Your task to perform on an android device: How big is the universe? Image 0: 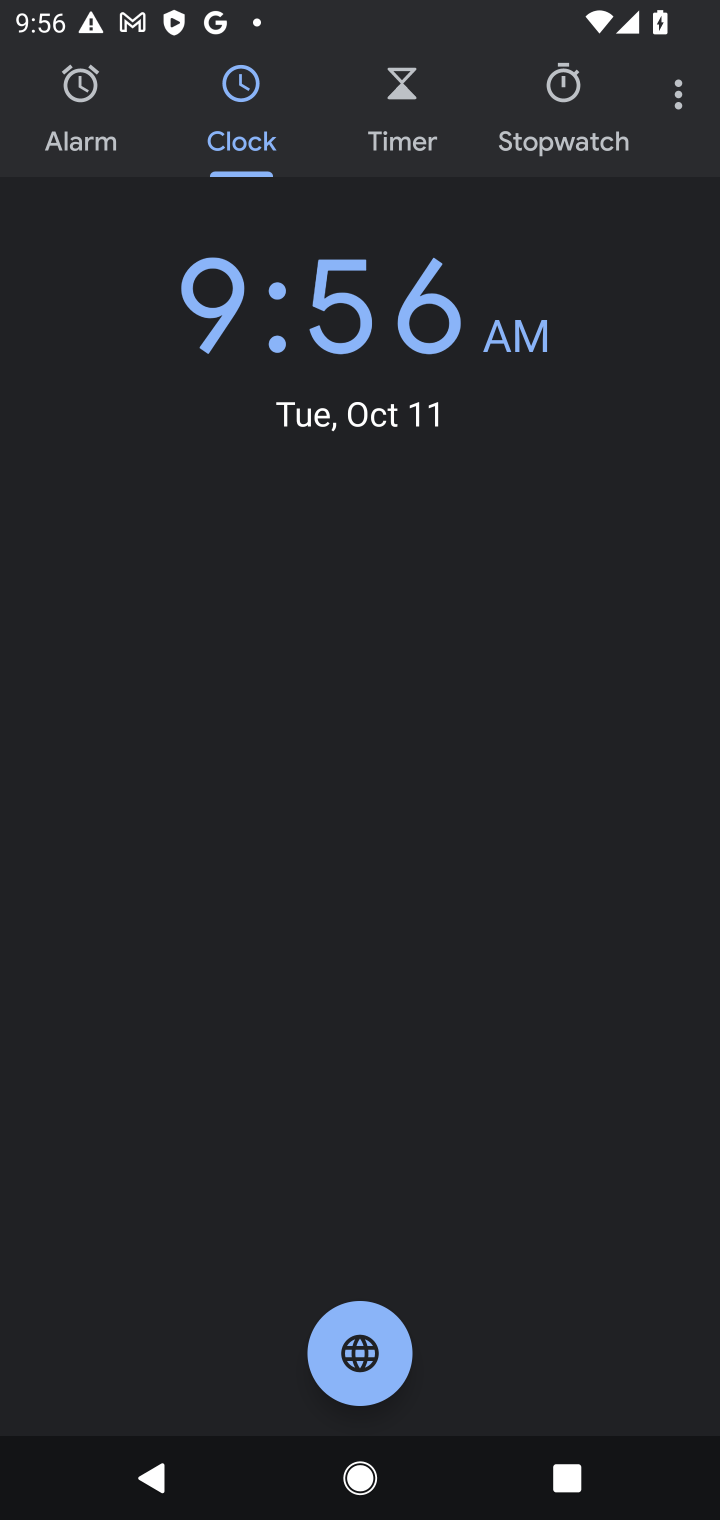
Step 0: press home button
Your task to perform on an android device: How big is the universe? Image 1: 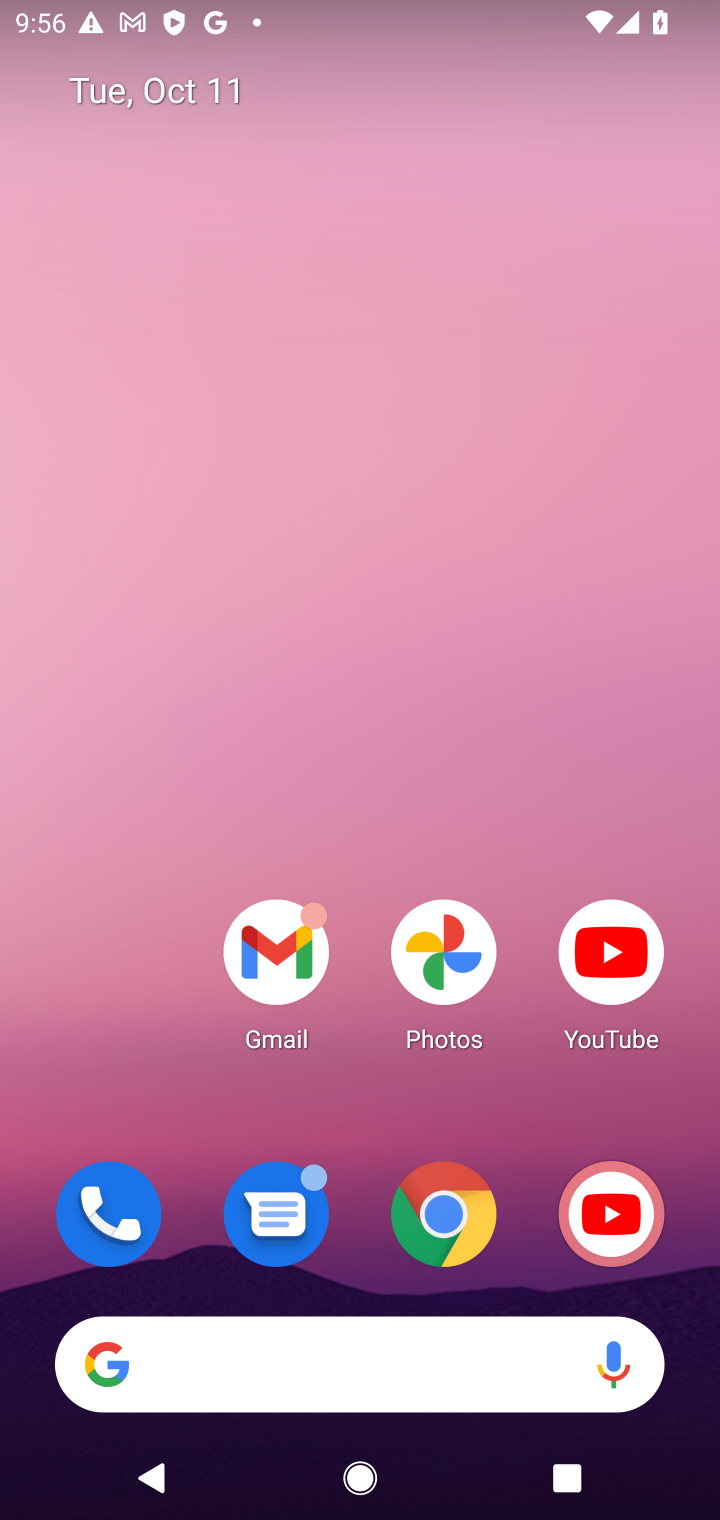
Step 1: drag from (381, 1132) to (360, 33)
Your task to perform on an android device: How big is the universe? Image 2: 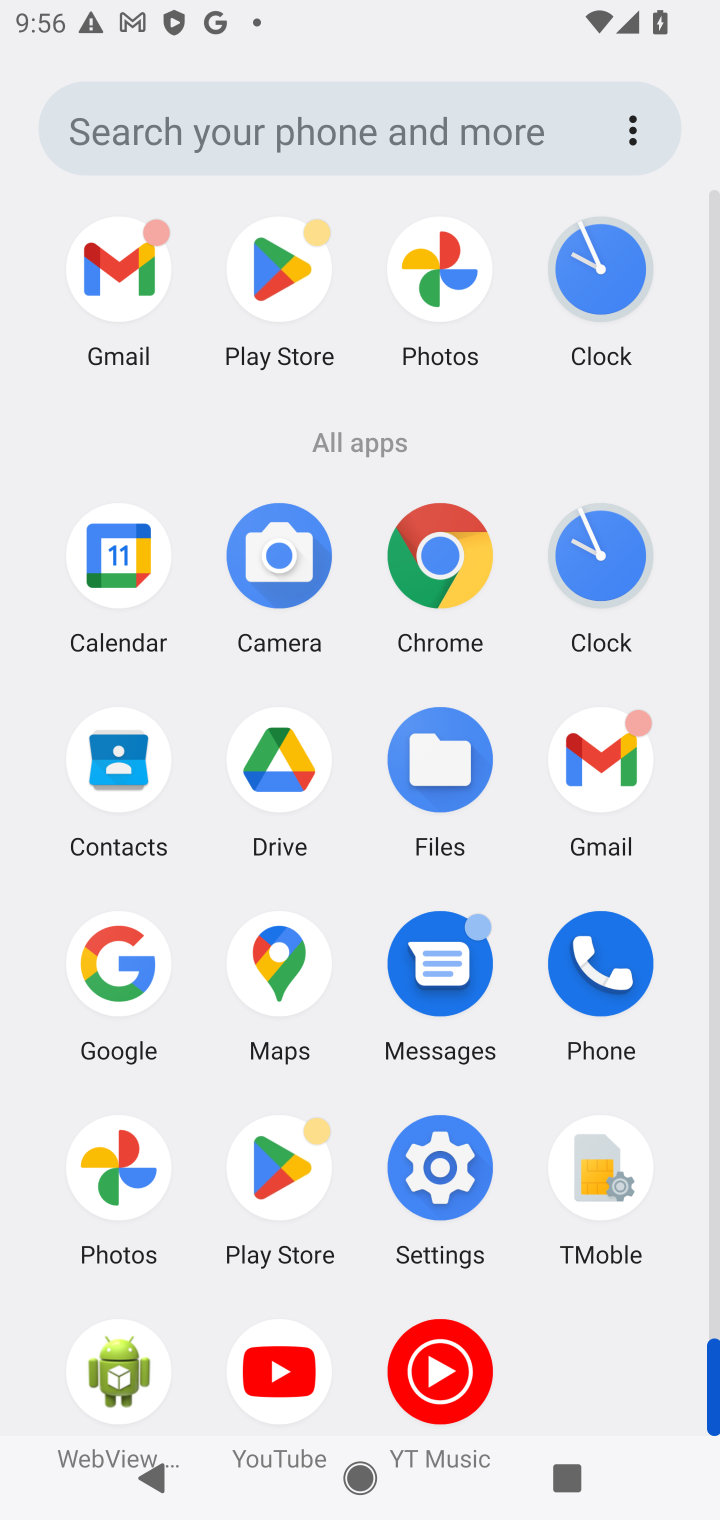
Step 2: click (454, 554)
Your task to perform on an android device: How big is the universe? Image 3: 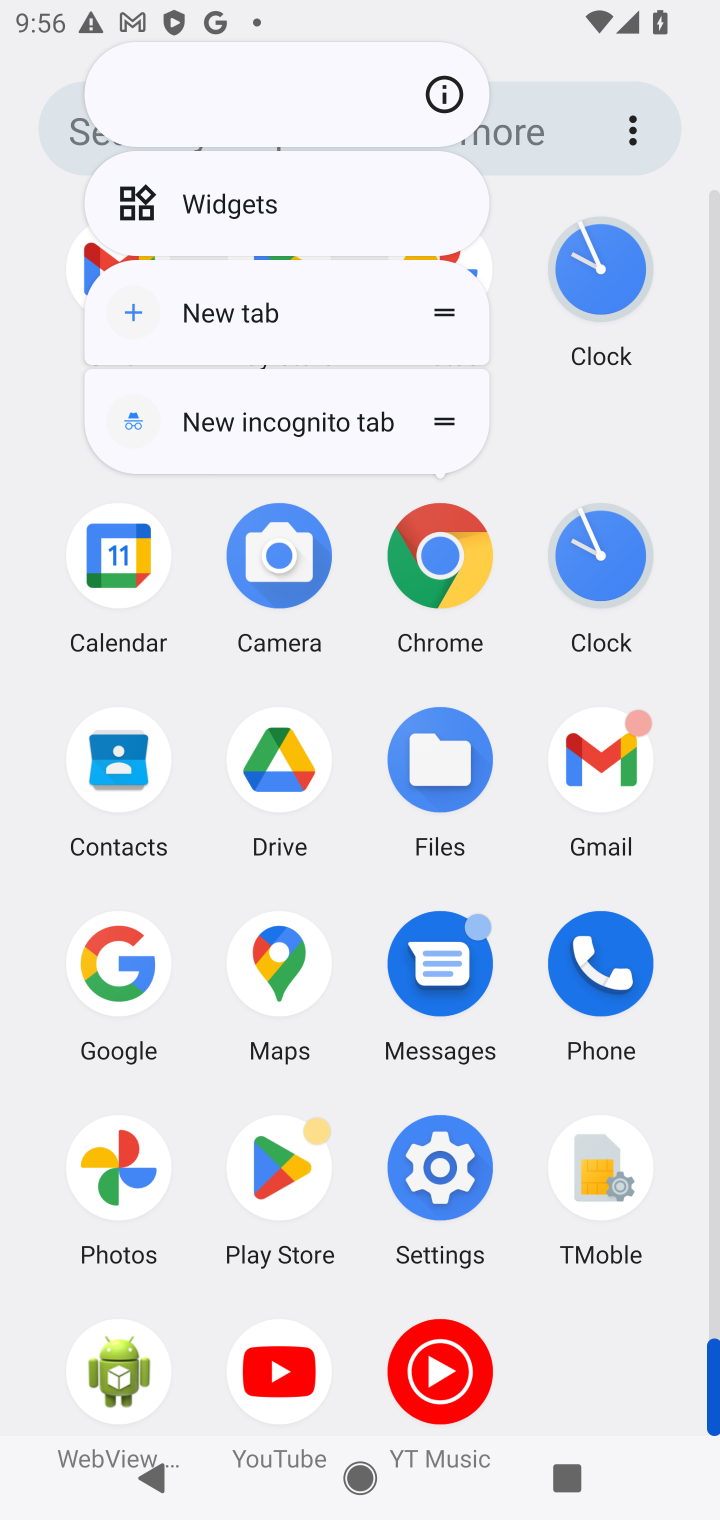
Step 3: click (456, 552)
Your task to perform on an android device: How big is the universe? Image 4: 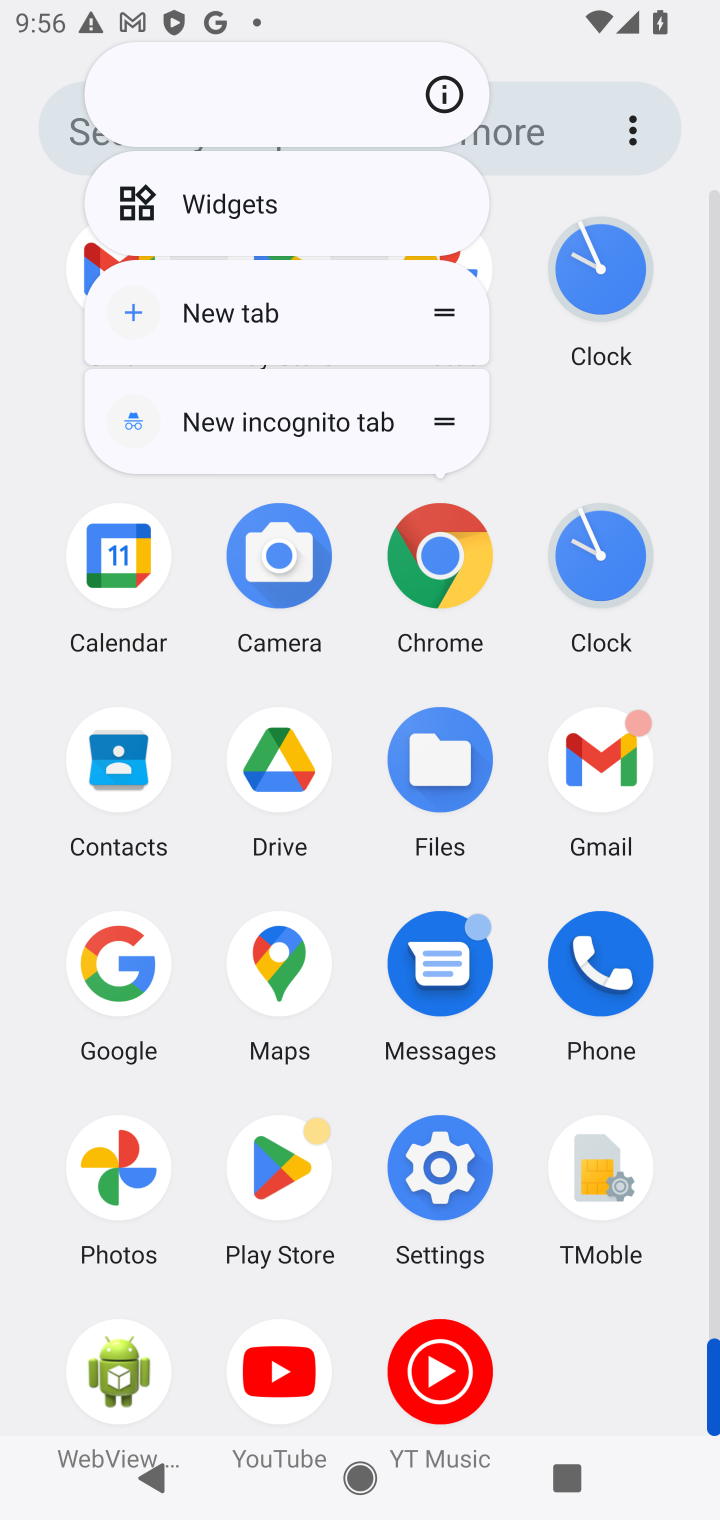
Step 4: click (450, 552)
Your task to perform on an android device: How big is the universe? Image 5: 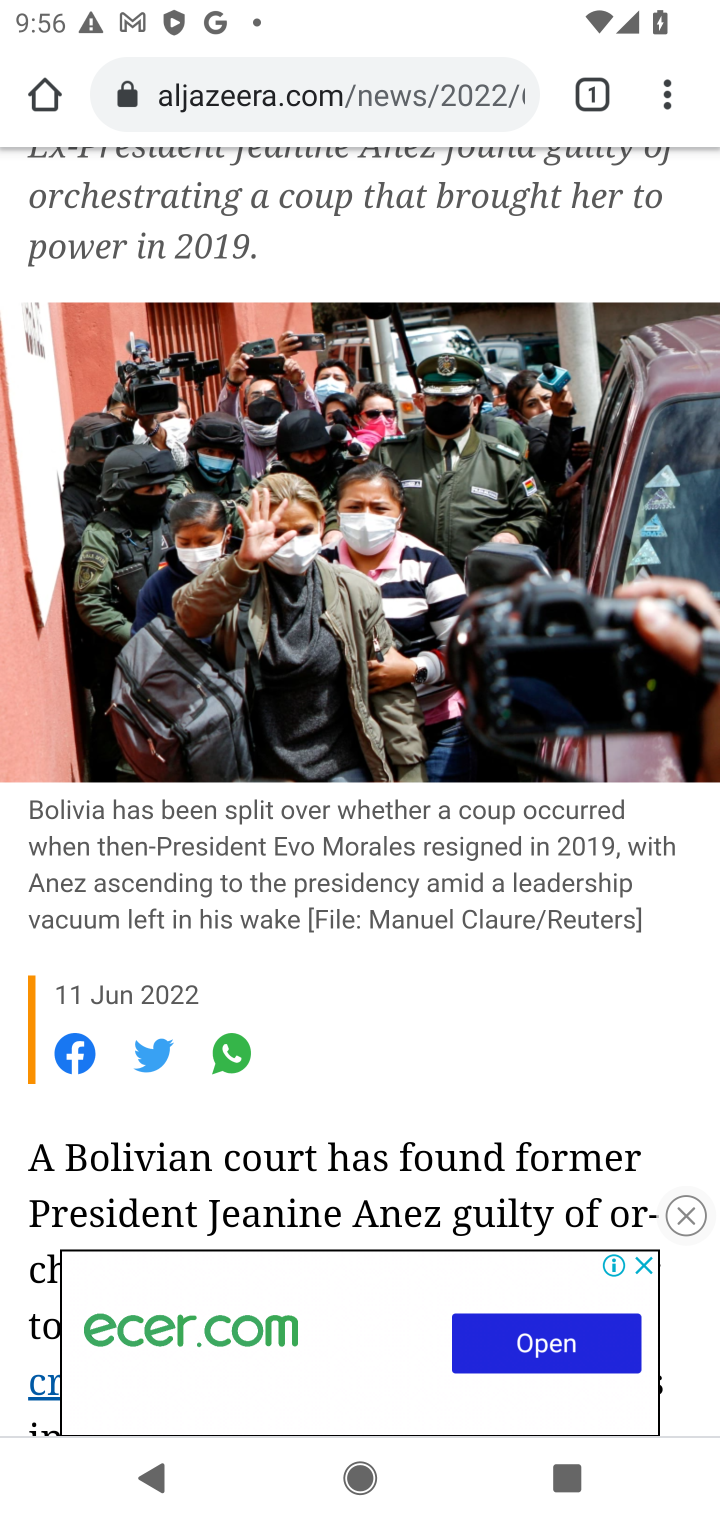
Step 5: click (431, 88)
Your task to perform on an android device: How big is the universe? Image 6: 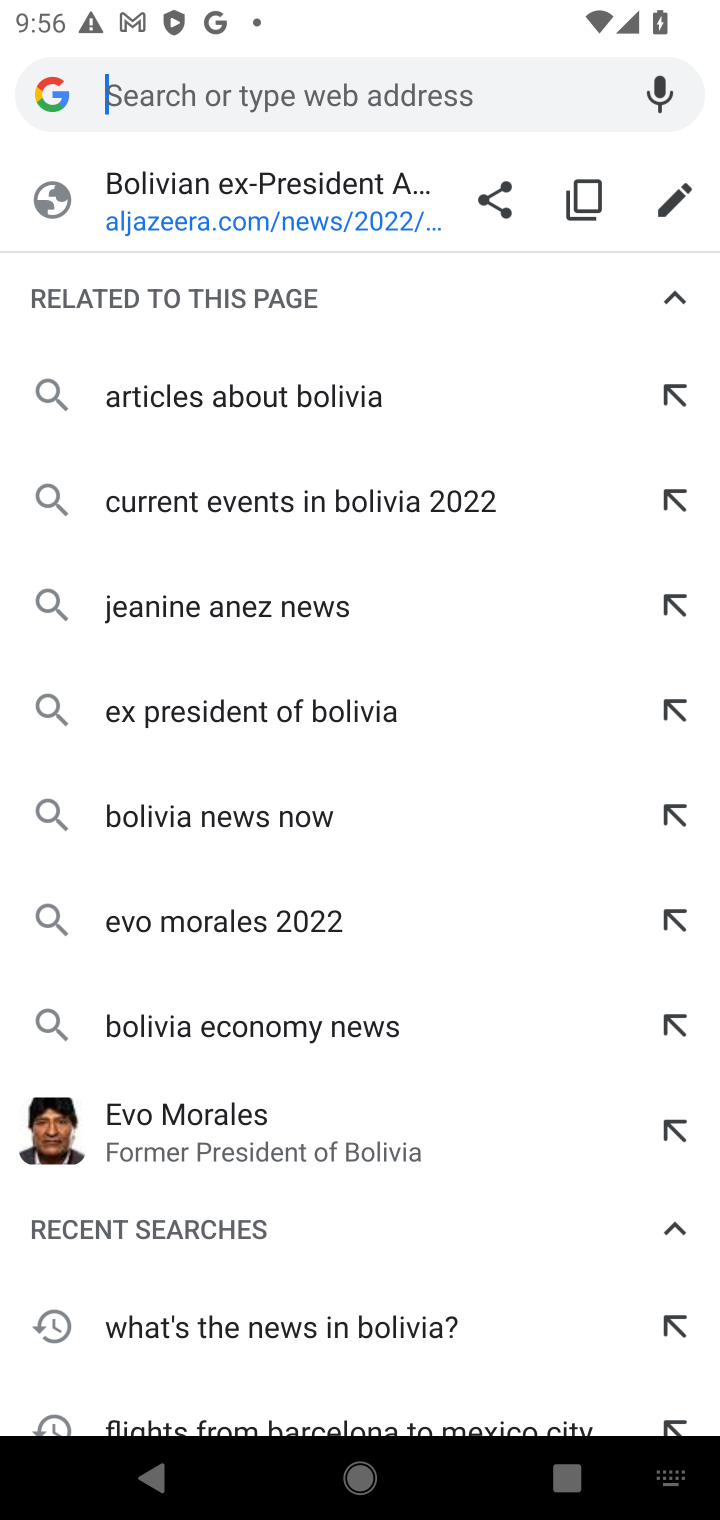
Step 6: type "how big is the universe"
Your task to perform on an android device: How big is the universe? Image 7: 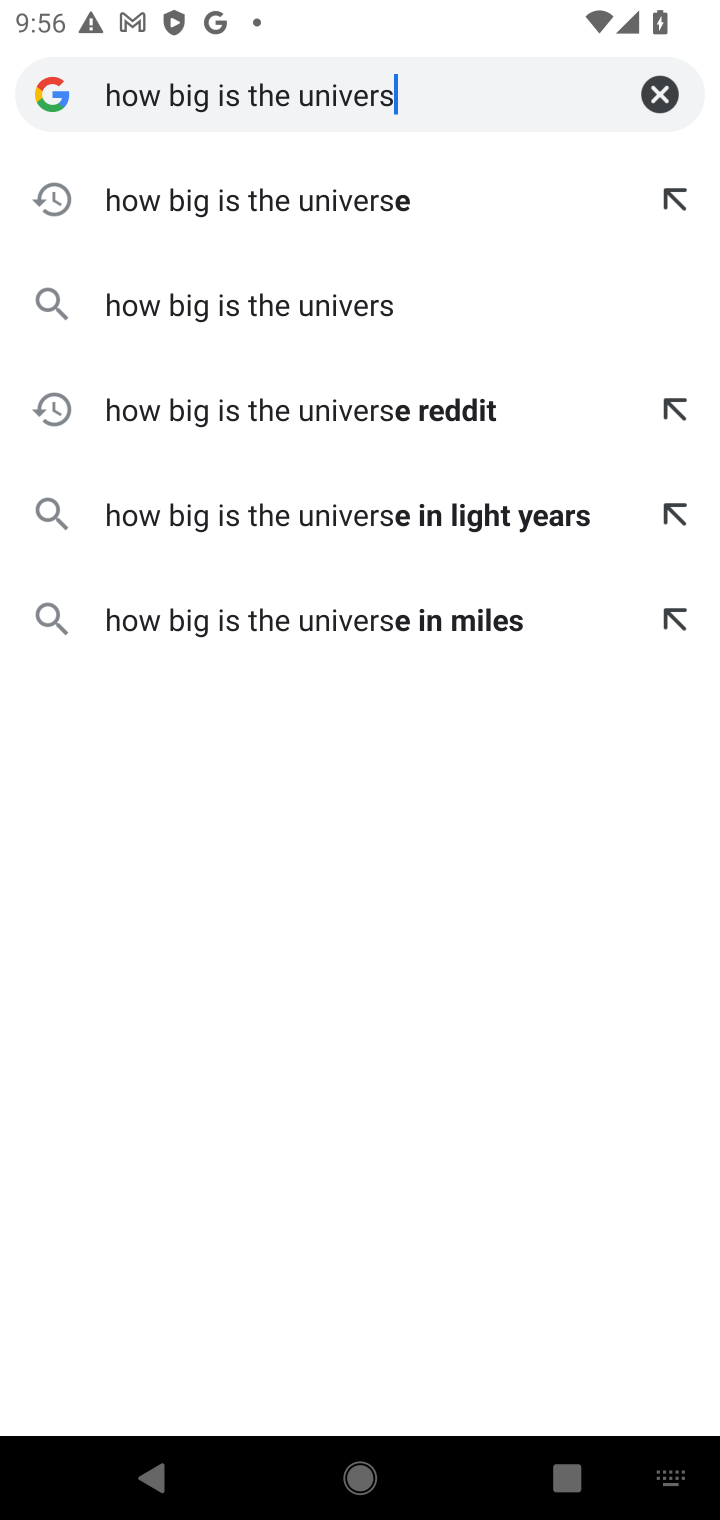
Step 7: type "?"
Your task to perform on an android device: How big is the universe? Image 8: 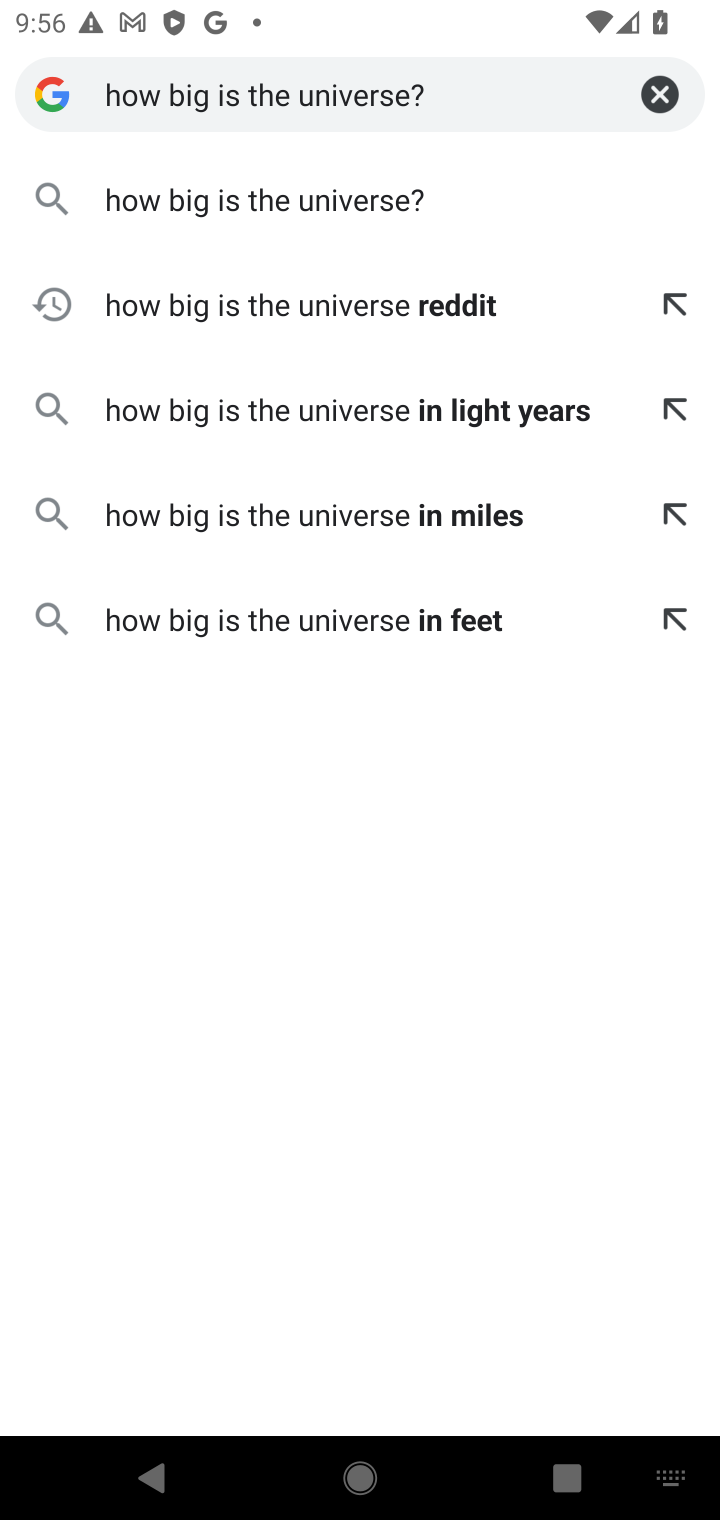
Step 8: press enter
Your task to perform on an android device: How big is the universe? Image 9: 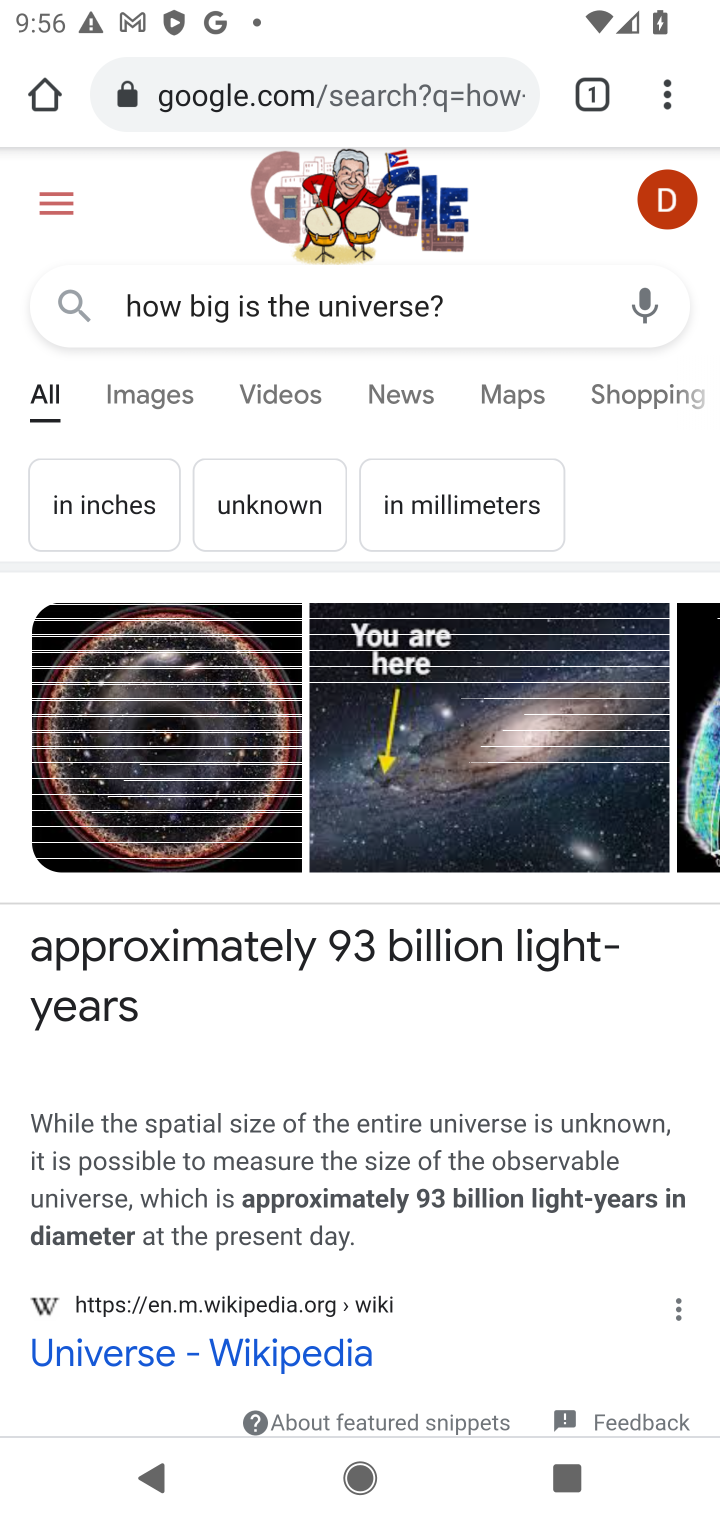
Step 9: task complete